Your task to perform on an android device: Show me popular games on the Play Store Image 0: 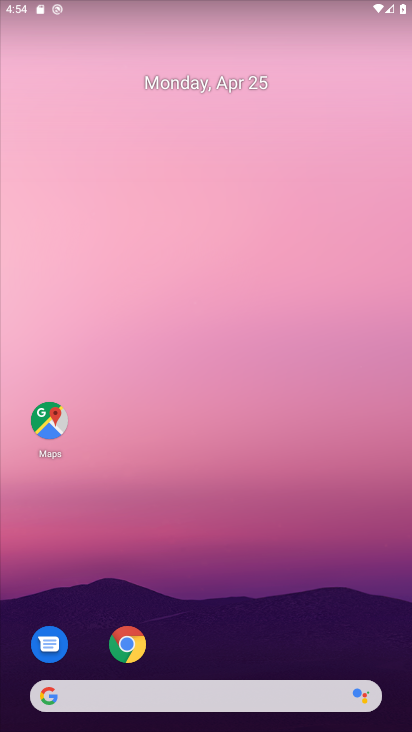
Step 0: click (132, 641)
Your task to perform on an android device: Show me popular games on the Play Store Image 1: 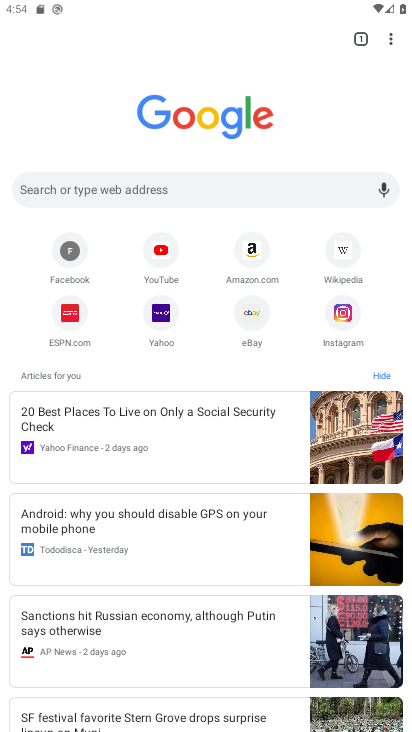
Step 1: click (248, 309)
Your task to perform on an android device: Show me popular games on the Play Store Image 2: 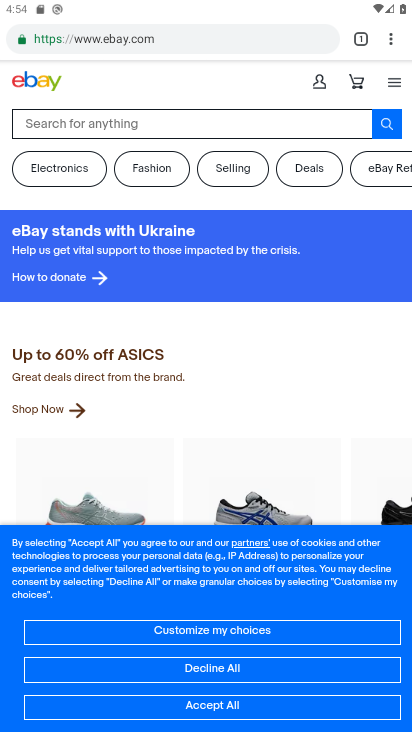
Step 2: press home button
Your task to perform on an android device: Show me popular games on the Play Store Image 3: 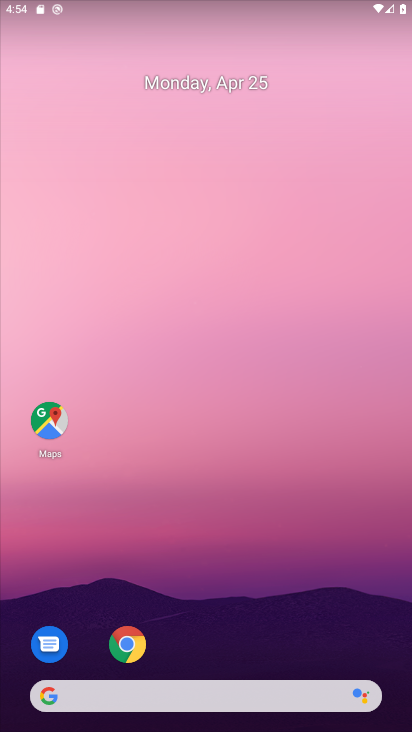
Step 3: drag from (249, 618) to (202, 71)
Your task to perform on an android device: Show me popular games on the Play Store Image 4: 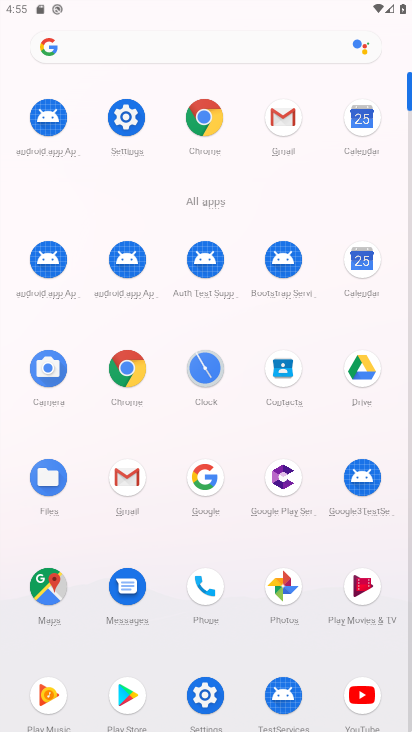
Step 4: click (122, 704)
Your task to perform on an android device: Show me popular games on the Play Store Image 5: 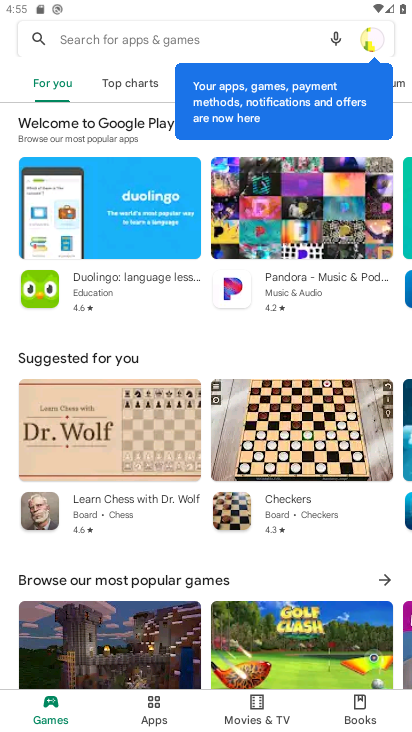
Step 5: click (137, 79)
Your task to perform on an android device: Show me popular games on the Play Store Image 6: 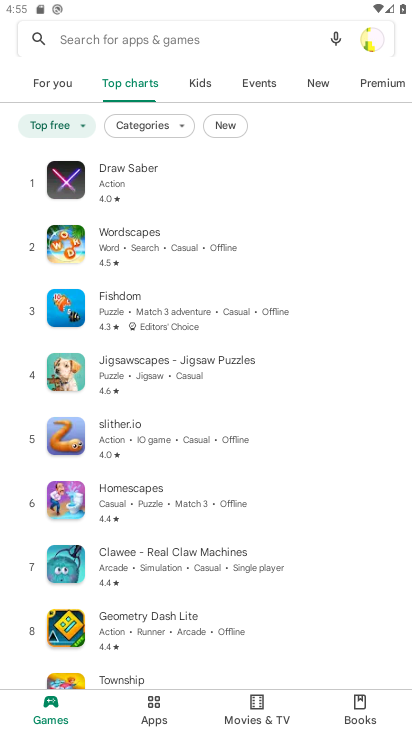
Step 6: task complete